Your task to perform on an android device: Set an alarm for 12pm Image 0: 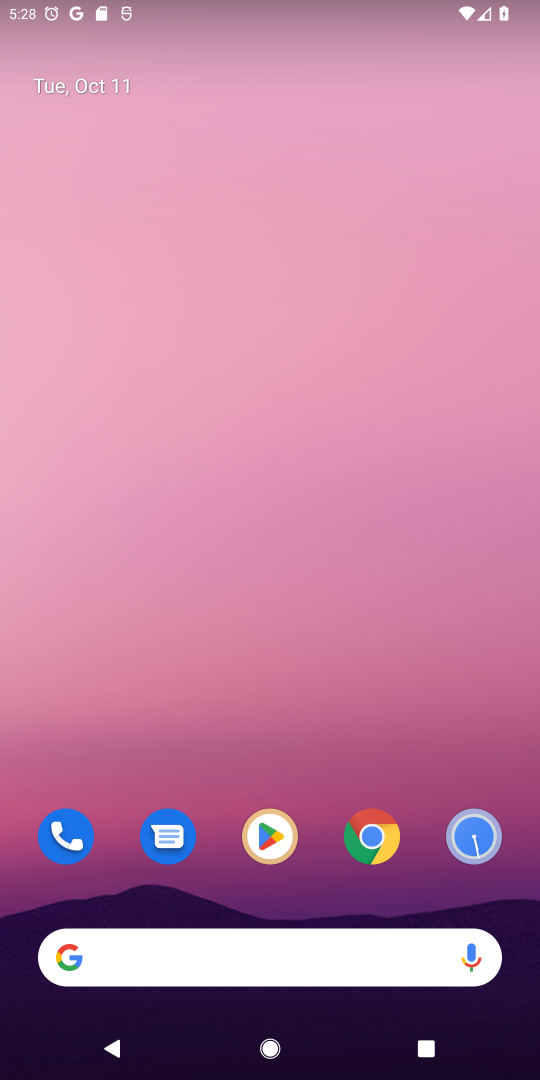
Step 0: click (461, 843)
Your task to perform on an android device: Set an alarm for 12pm Image 1: 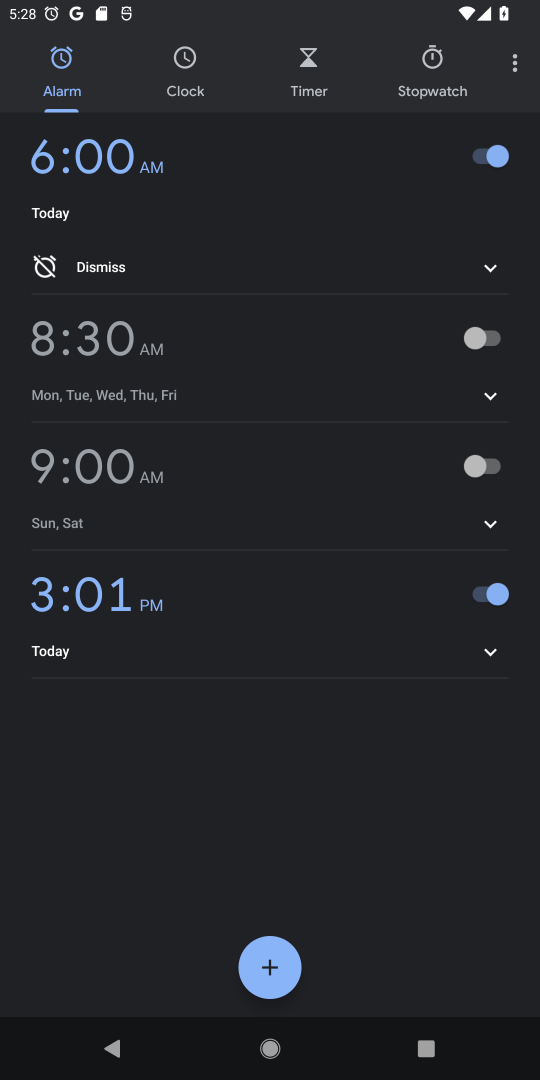
Step 1: click (261, 964)
Your task to perform on an android device: Set an alarm for 12pm Image 2: 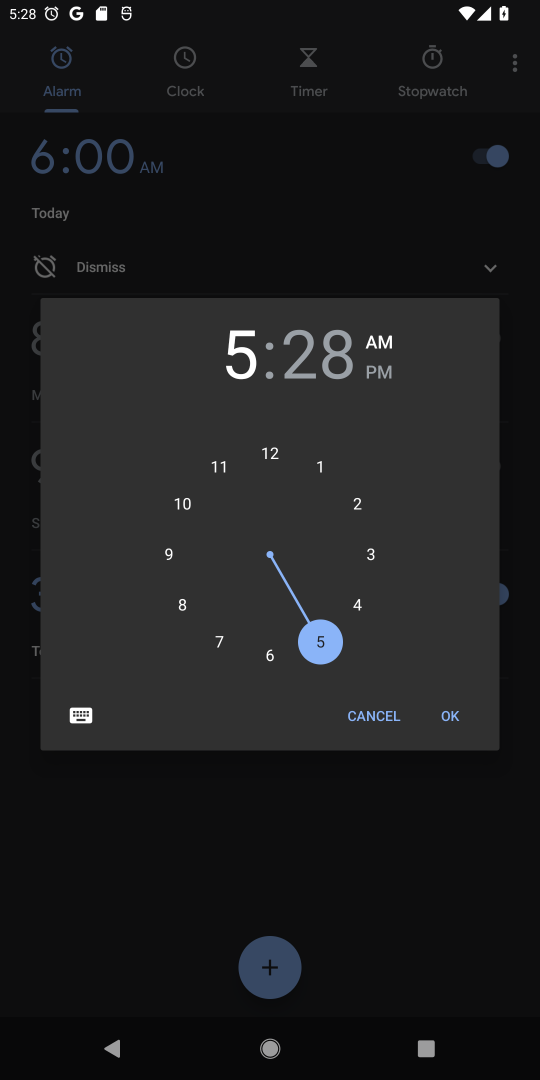
Step 2: click (283, 464)
Your task to perform on an android device: Set an alarm for 12pm Image 3: 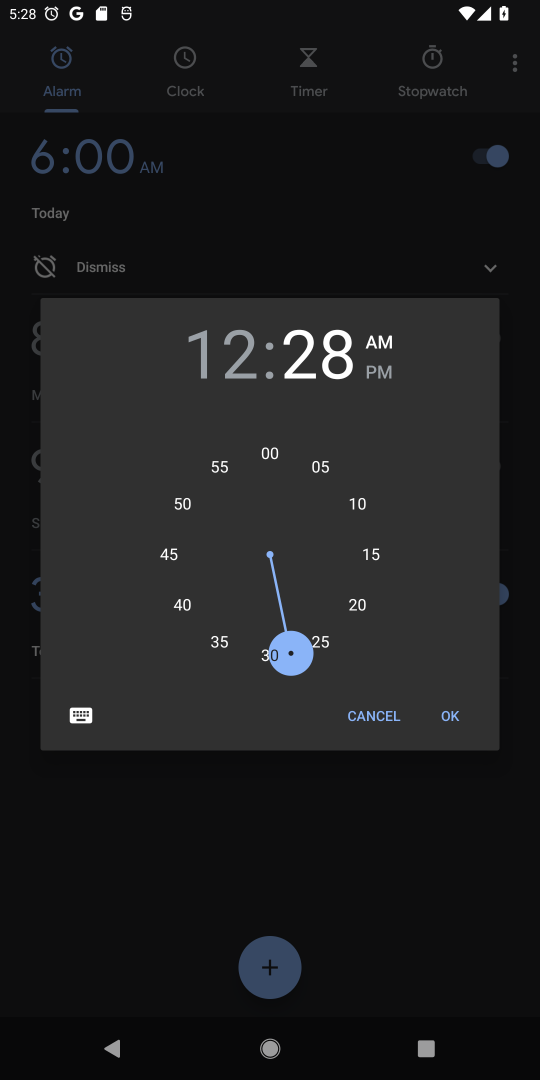
Step 3: click (268, 456)
Your task to perform on an android device: Set an alarm for 12pm Image 4: 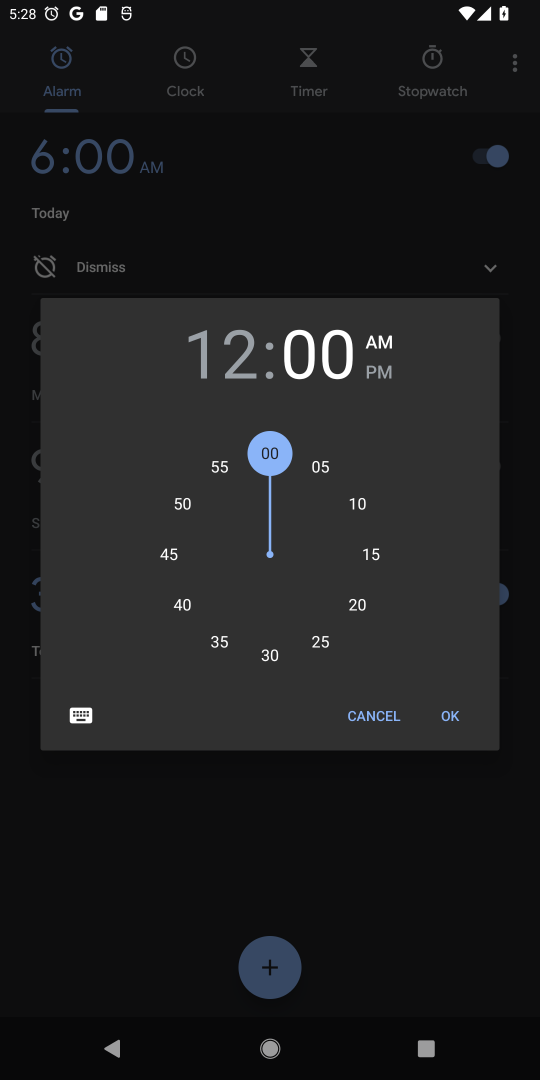
Step 4: click (459, 730)
Your task to perform on an android device: Set an alarm for 12pm Image 5: 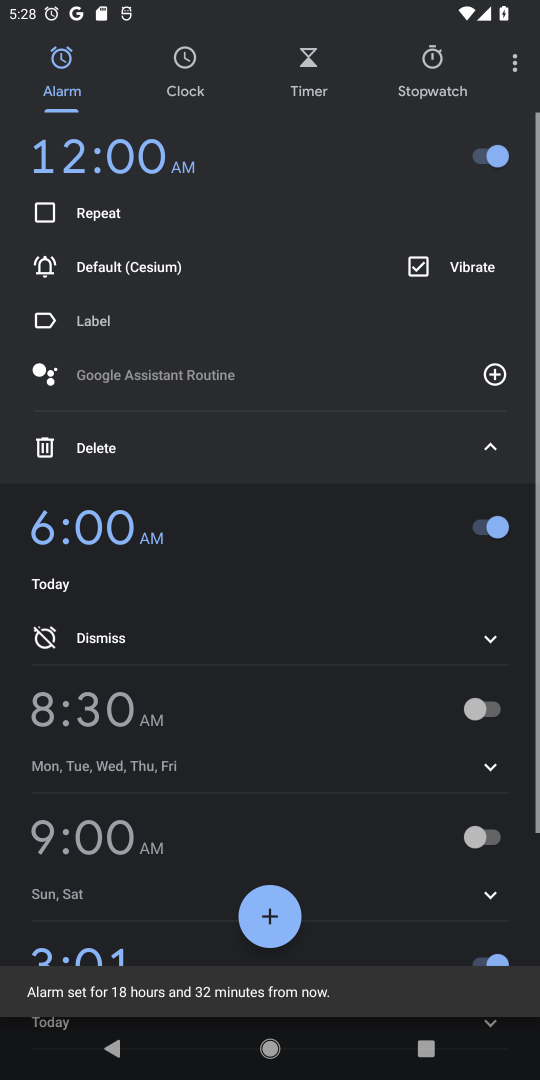
Step 5: task complete